Your task to perform on an android device: Search for Italian restaurants on Maps Image 0: 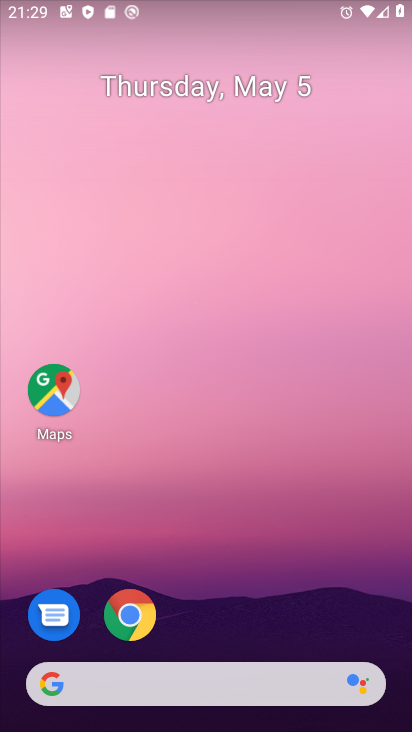
Step 0: click (58, 395)
Your task to perform on an android device: Search for Italian restaurants on Maps Image 1: 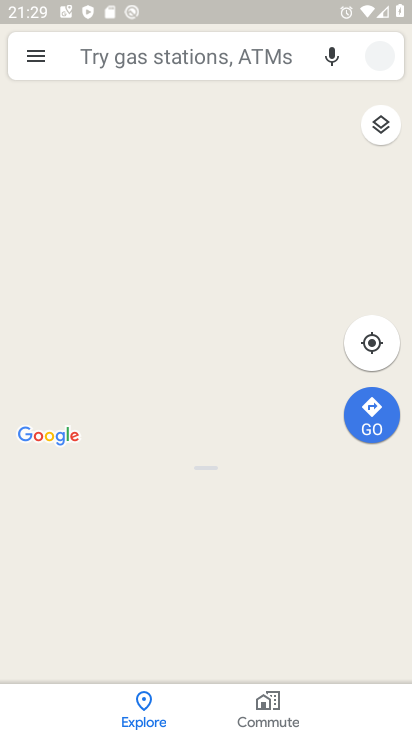
Step 1: click (216, 64)
Your task to perform on an android device: Search for Italian restaurants on Maps Image 2: 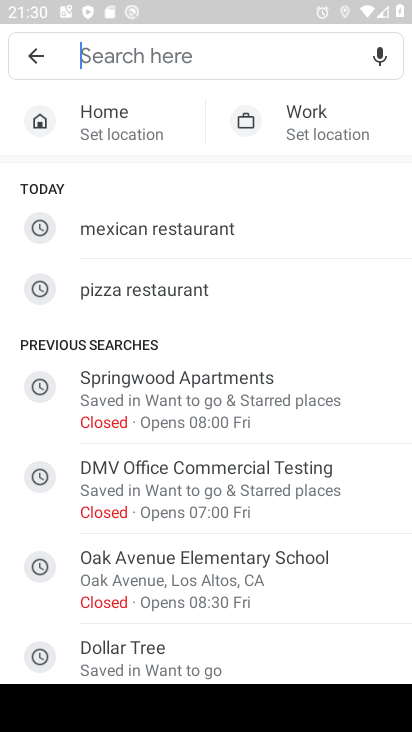
Step 2: type "italian restaurants"
Your task to perform on an android device: Search for Italian restaurants on Maps Image 3: 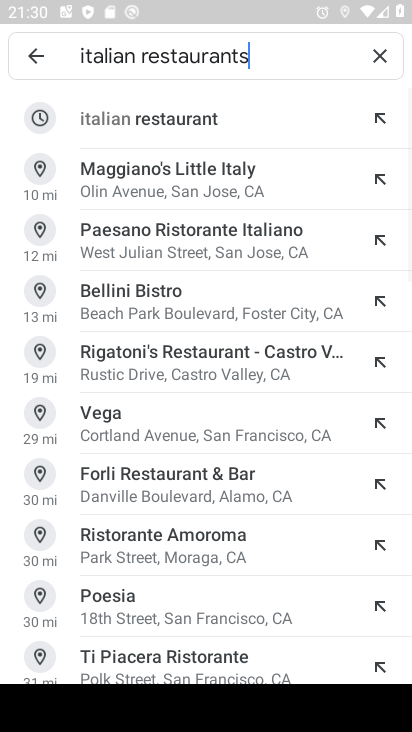
Step 3: click (225, 122)
Your task to perform on an android device: Search for Italian restaurants on Maps Image 4: 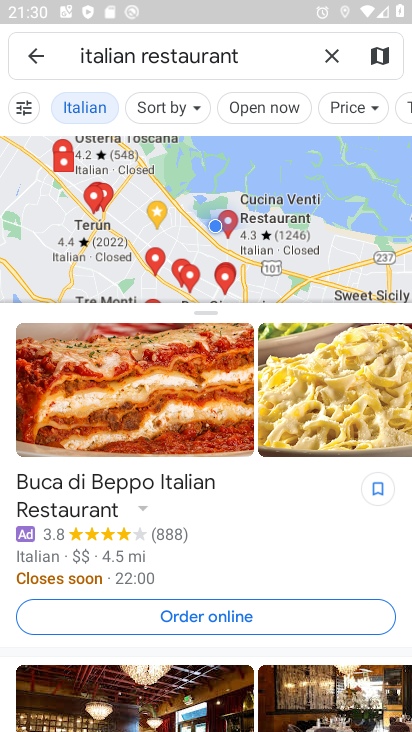
Step 4: task complete